Your task to perform on an android device: turn notification dots on Image 0: 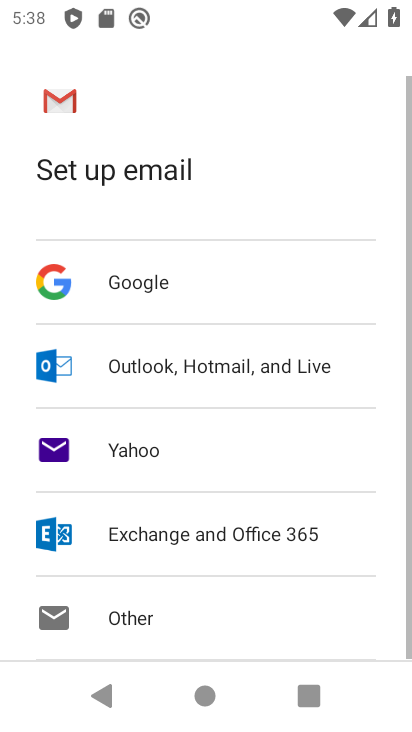
Step 0: press home button
Your task to perform on an android device: turn notification dots on Image 1: 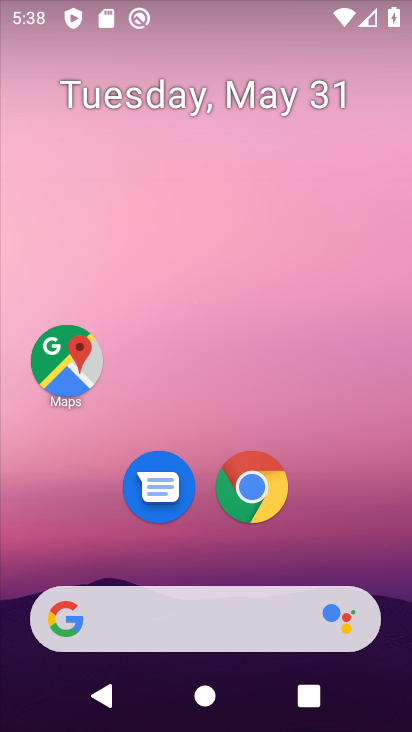
Step 1: drag from (353, 524) to (262, 143)
Your task to perform on an android device: turn notification dots on Image 2: 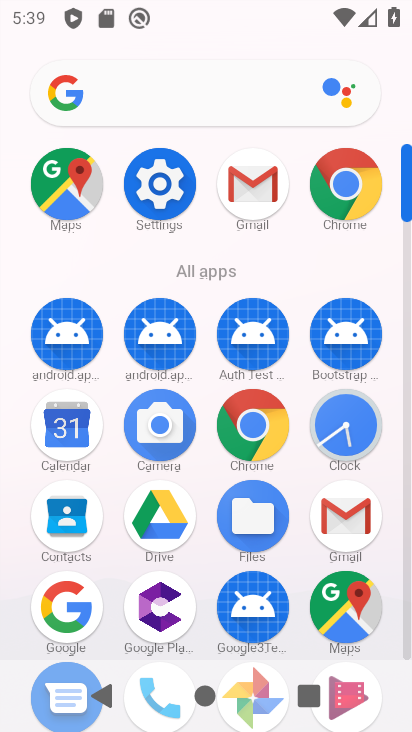
Step 2: click (153, 192)
Your task to perform on an android device: turn notification dots on Image 3: 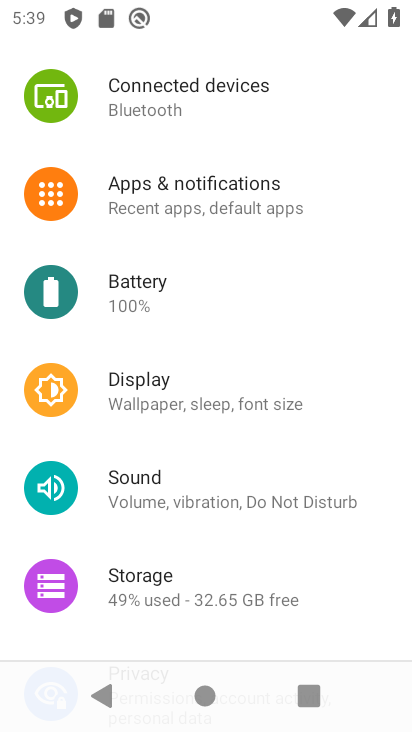
Step 3: click (197, 191)
Your task to perform on an android device: turn notification dots on Image 4: 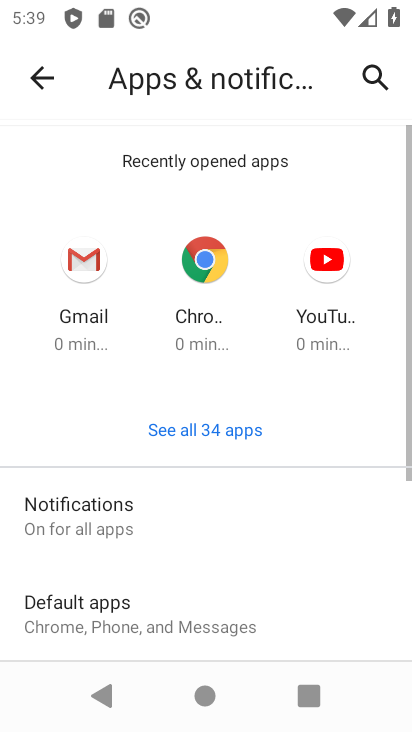
Step 4: click (94, 503)
Your task to perform on an android device: turn notification dots on Image 5: 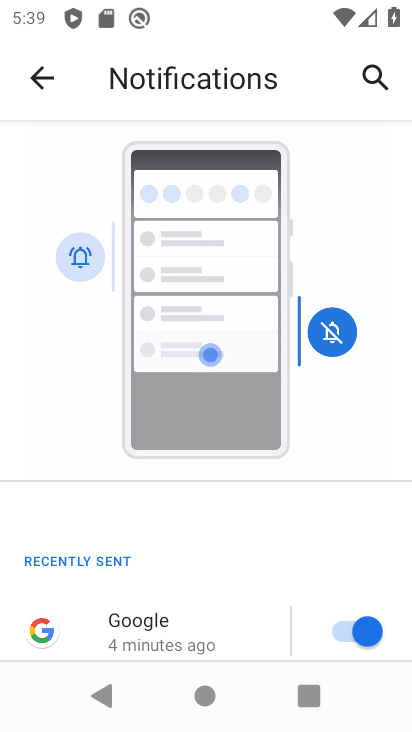
Step 5: drag from (272, 558) to (272, 177)
Your task to perform on an android device: turn notification dots on Image 6: 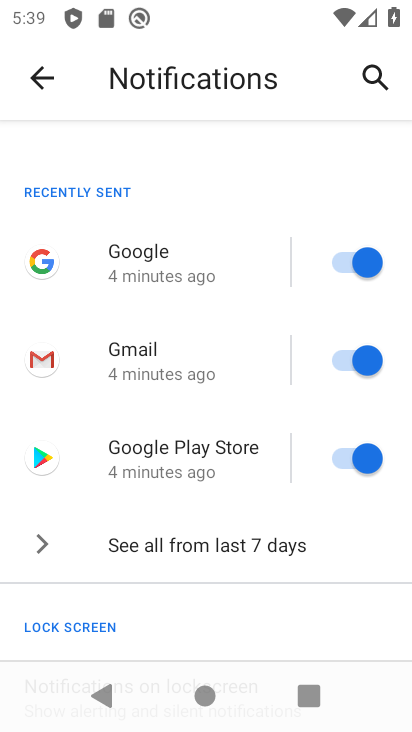
Step 6: drag from (234, 607) to (218, 248)
Your task to perform on an android device: turn notification dots on Image 7: 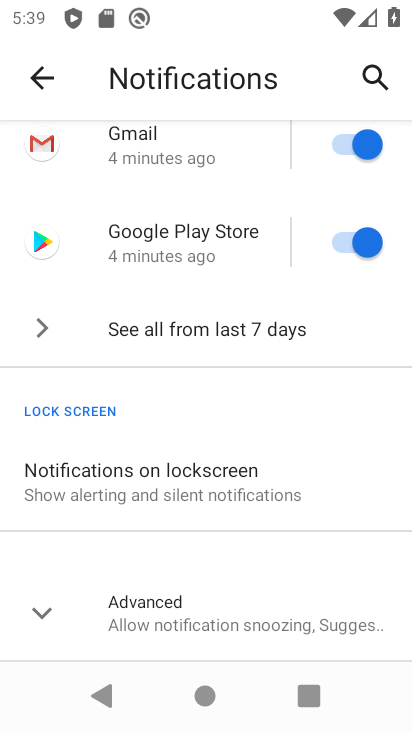
Step 7: click (35, 611)
Your task to perform on an android device: turn notification dots on Image 8: 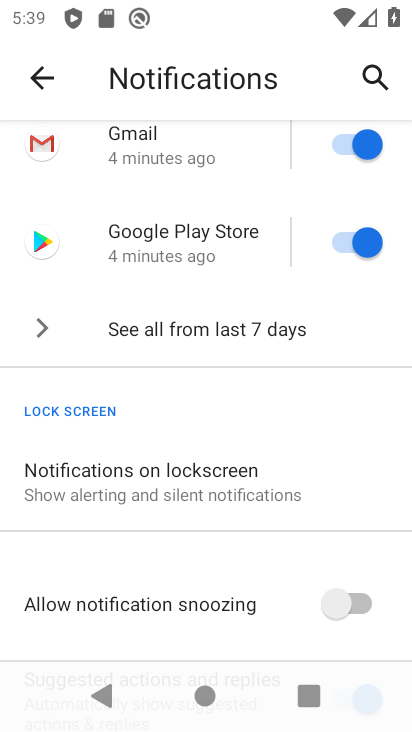
Step 8: task complete